Your task to perform on an android device: What's on my calendar tomorrow? Image 0: 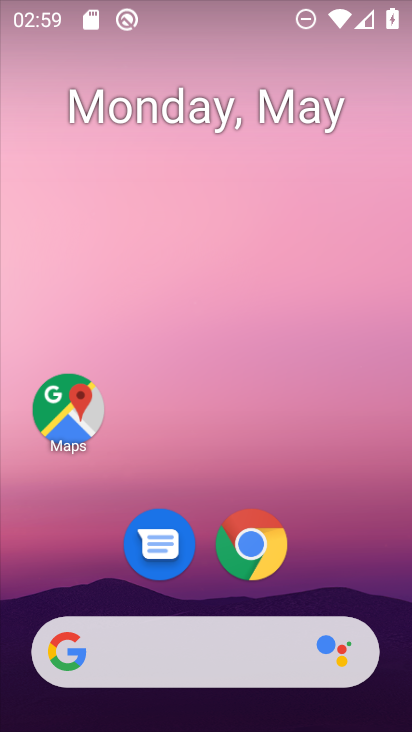
Step 0: drag from (389, 587) to (411, 394)
Your task to perform on an android device: What's on my calendar tomorrow? Image 1: 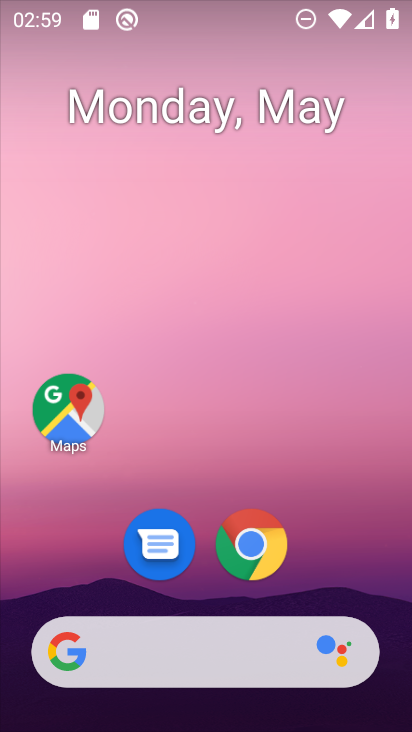
Step 1: drag from (380, 324) to (367, 127)
Your task to perform on an android device: What's on my calendar tomorrow? Image 2: 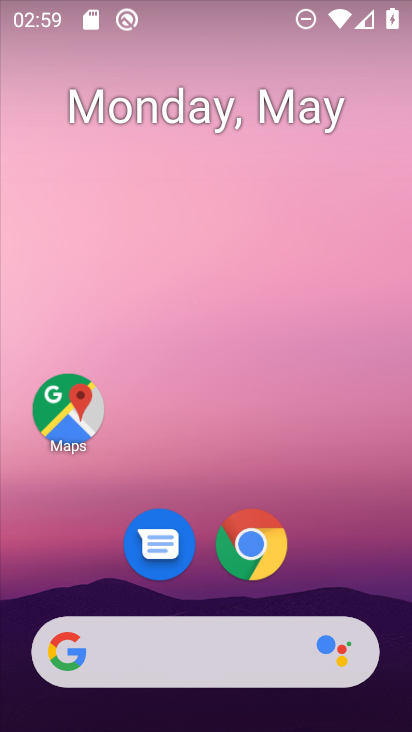
Step 2: drag from (367, 545) to (382, 88)
Your task to perform on an android device: What's on my calendar tomorrow? Image 3: 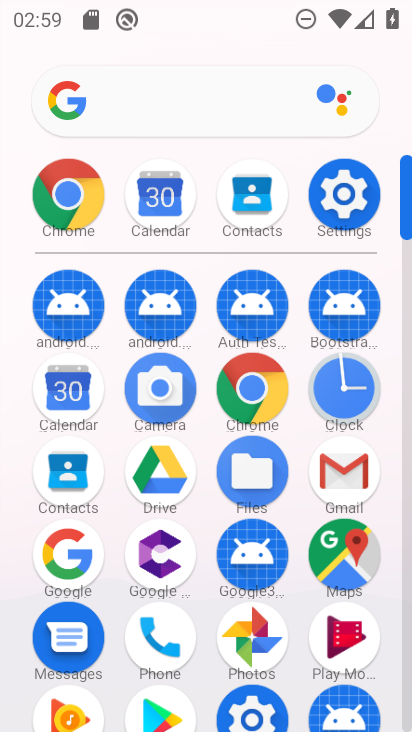
Step 3: click (91, 394)
Your task to perform on an android device: What's on my calendar tomorrow? Image 4: 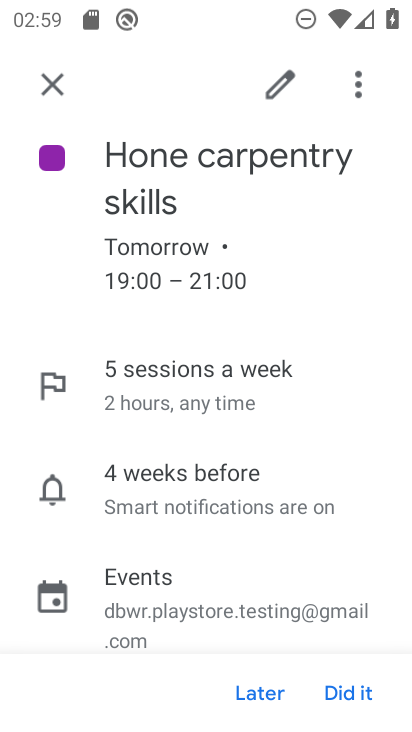
Step 4: task complete